Your task to perform on an android device: Go to notification settings Image 0: 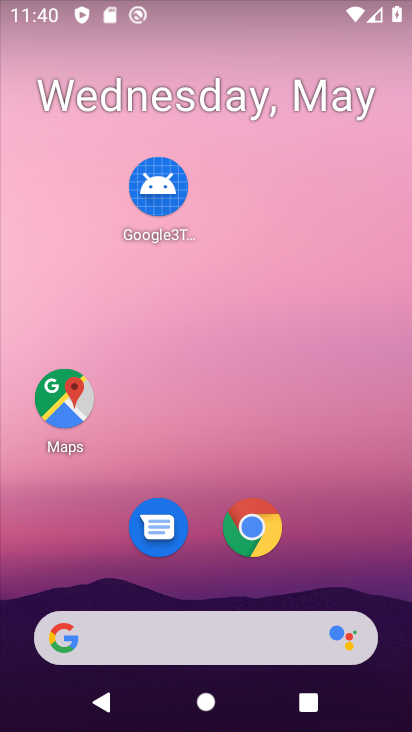
Step 0: drag from (204, 588) to (215, 376)
Your task to perform on an android device: Go to notification settings Image 1: 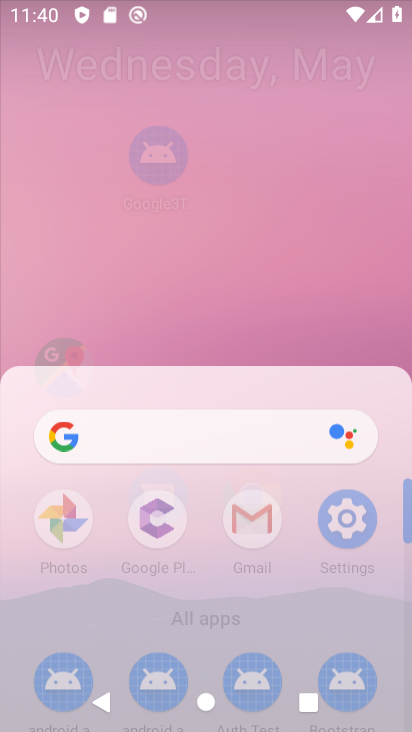
Step 1: click (246, 188)
Your task to perform on an android device: Go to notification settings Image 2: 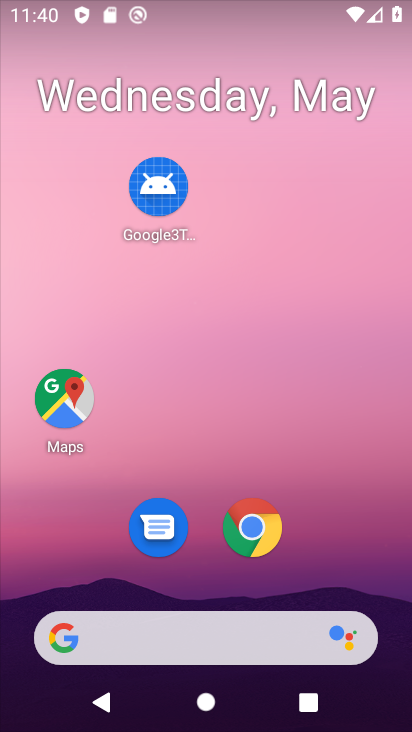
Step 2: drag from (210, 582) to (245, 148)
Your task to perform on an android device: Go to notification settings Image 3: 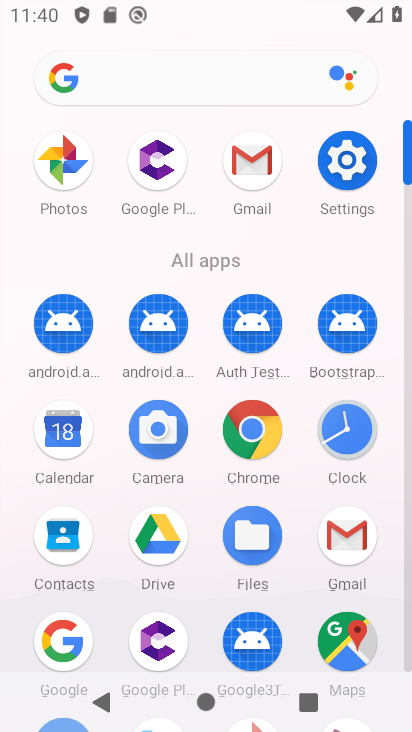
Step 3: click (343, 158)
Your task to perform on an android device: Go to notification settings Image 4: 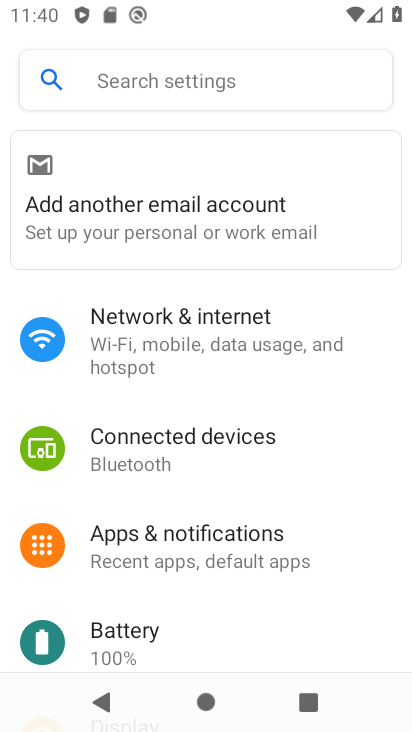
Step 4: click (194, 552)
Your task to perform on an android device: Go to notification settings Image 5: 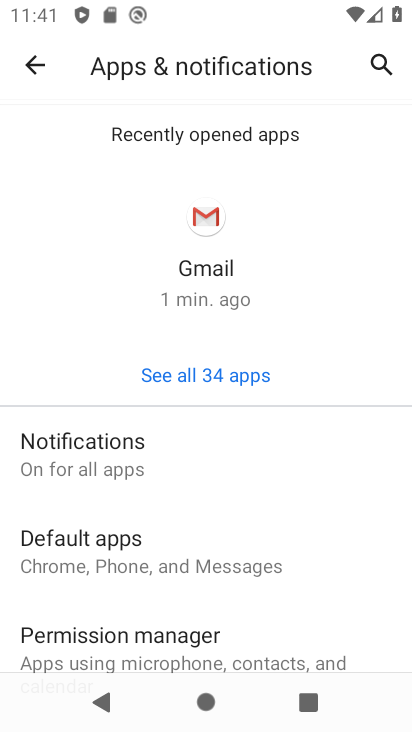
Step 5: click (163, 440)
Your task to perform on an android device: Go to notification settings Image 6: 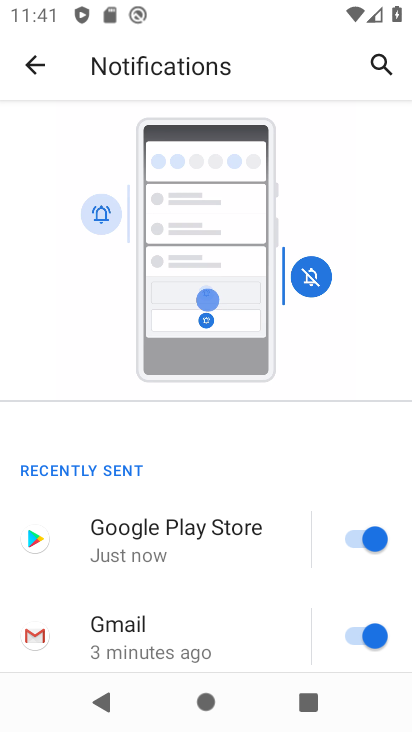
Step 6: drag from (250, 649) to (244, 170)
Your task to perform on an android device: Go to notification settings Image 7: 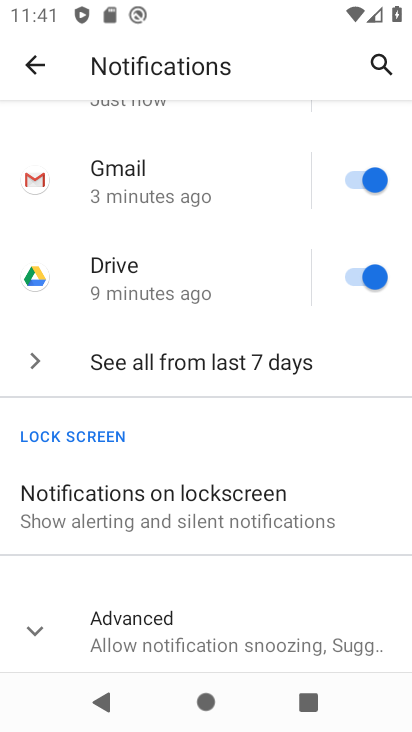
Step 7: click (33, 627)
Your task to perform on an android device: Go to notification settings Image 8: 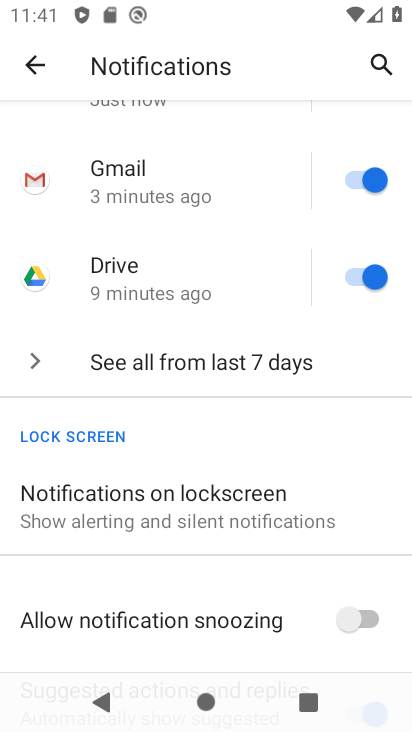
Step 8: task complete